Your task to perform on an android device: search for starred emails in the gmail app Image 0: 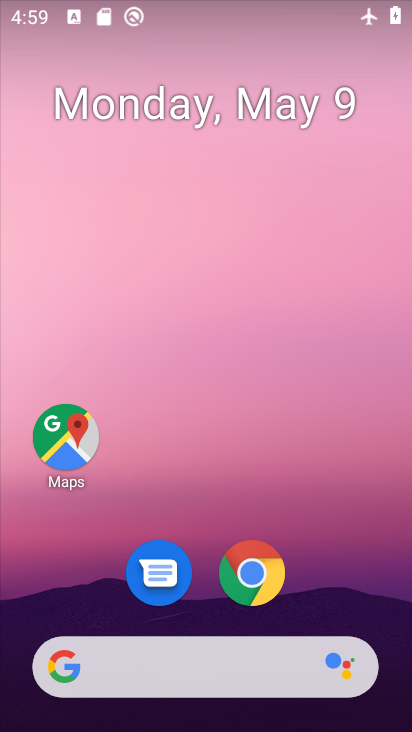
Step 0: drag from (373, 619) to (340, 41)
Your task to perform on an android device: search for starred emails in the gmail app Image 1: 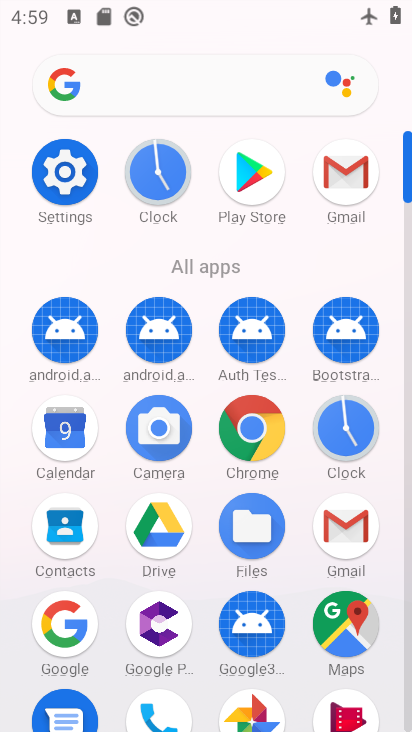
Step 1: click (406, 687)
Your task to perform on an android device: search for starred emails in the gmail app Image 2: 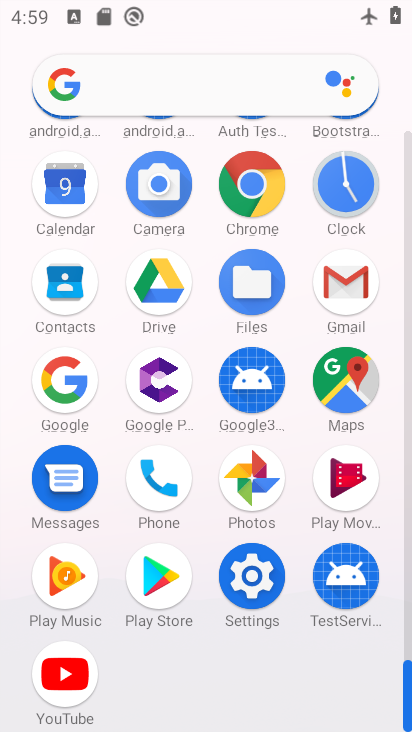
Step 2: click (342, 280)
Your task to perform on an android device: search for starred emails in the gmail app Image 3: 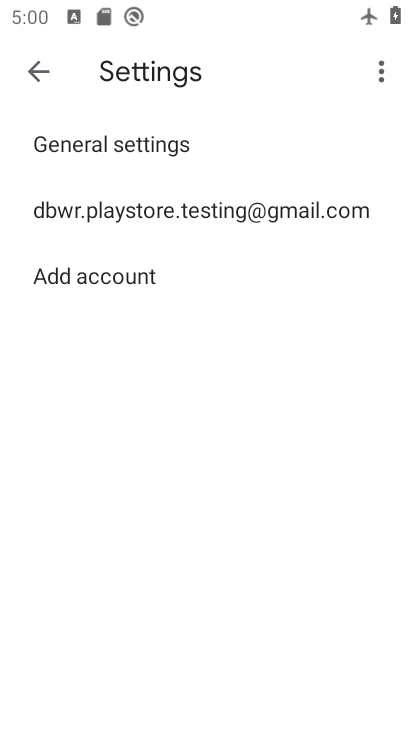
Step 3: press back button
Your task to perform on an android device: search for starred emails in the gmail app Image 4: 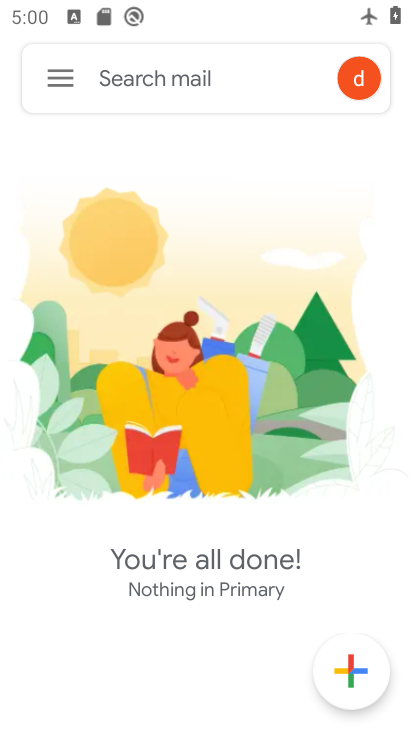
Step 4: click (61, 78)
Your task to perform on an android device: search for starred emails in the gmail app Image 5: 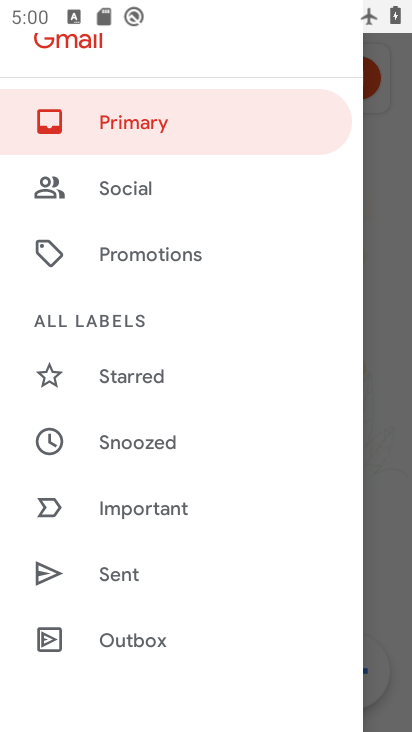
Step 5: click (126, 375)
Your task to perform on an android device: search for starred emails in the gmail app Image 6: 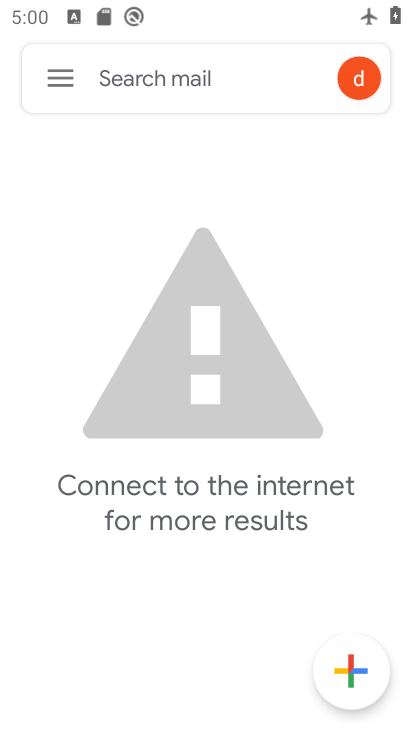
Step 6: task complete